Your task to perform on an android device: toggle location history Image 0: 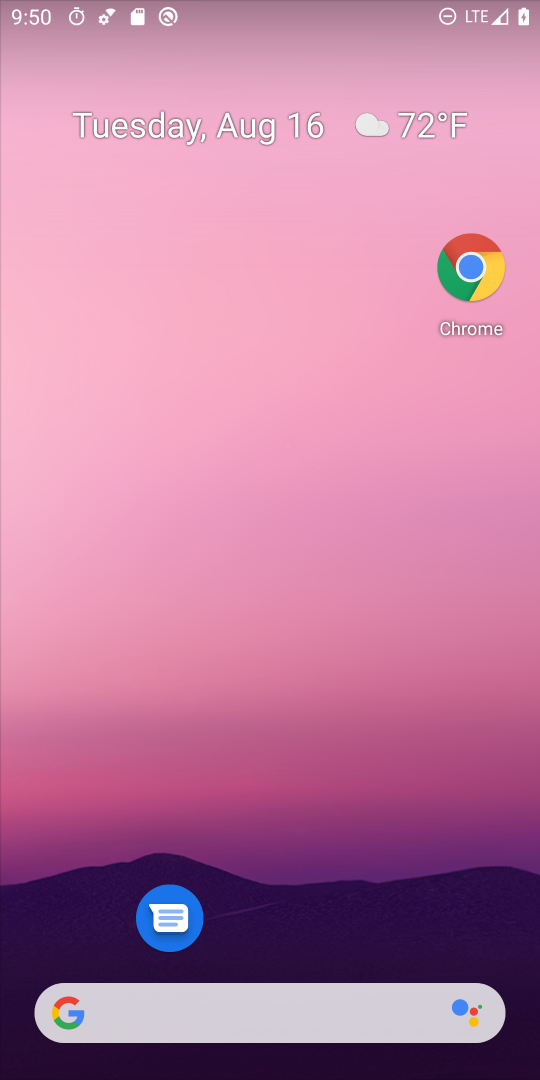
Step 0: drag from (270, 657) to (232, 97)
Your task to perform on an android device: toggle location history Image 1: 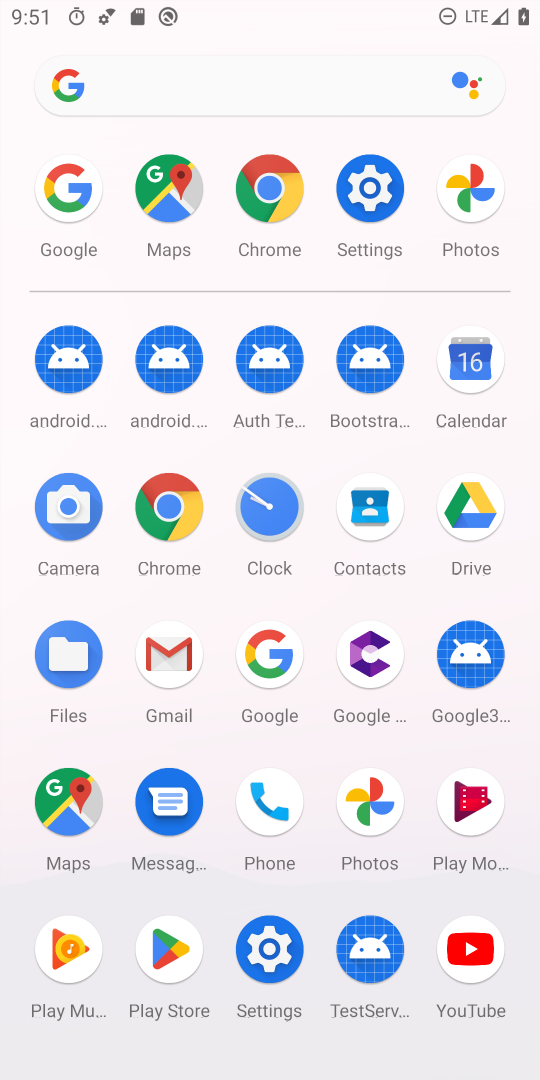
Step 1: click (373, 206)
Your task to perform on an android device: toggle location history Image 2: 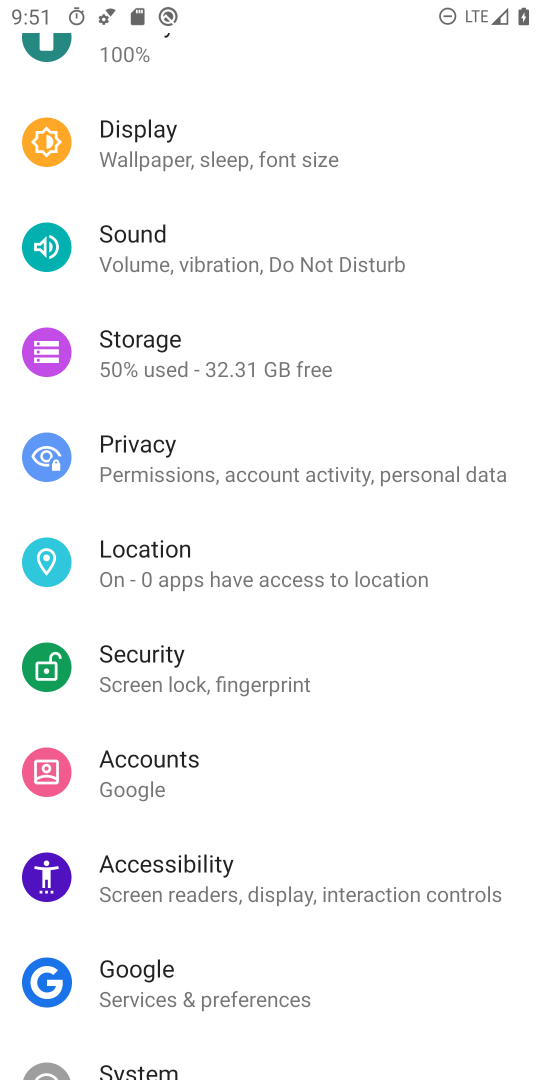
Step 2: click (265, 563)
Your task to perform on an android device: toggle location history Image 3: 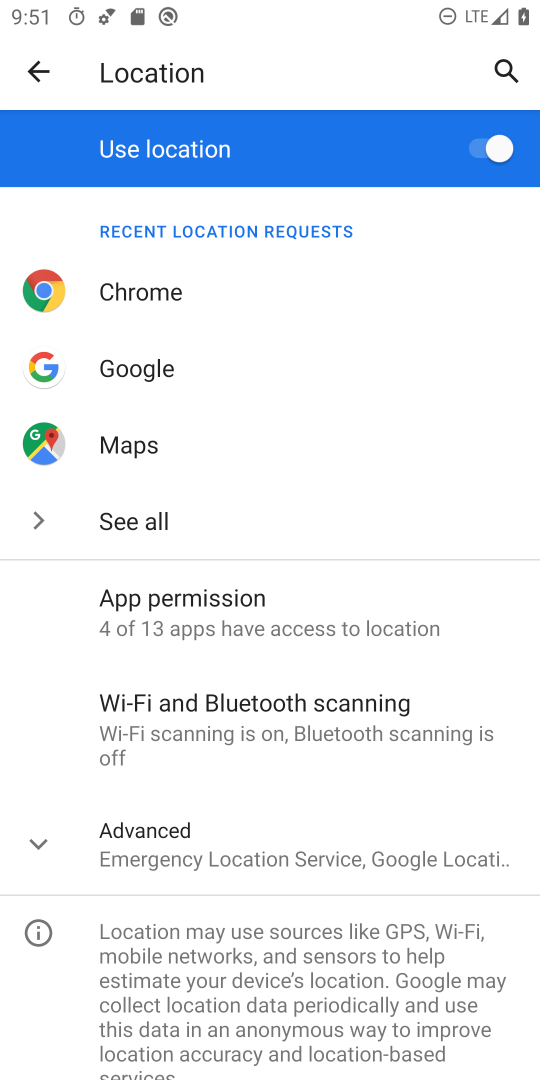
Step 3: click (241, 849)
Your task to perform on an android device: toggle location history Image 4: 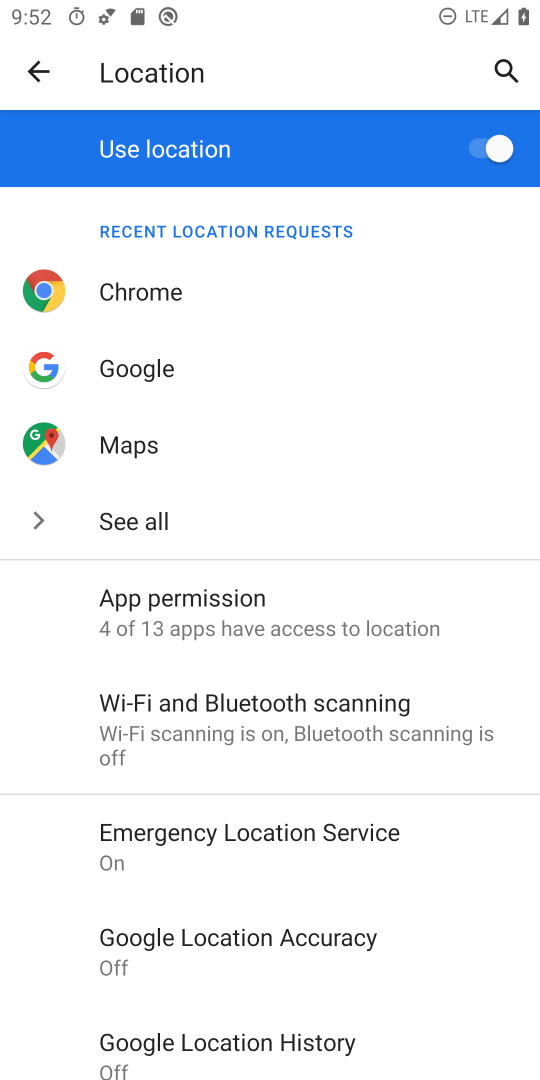
Step 4: click (295, 1054)
Your task to perform on an android device: toggle location history Image 5: 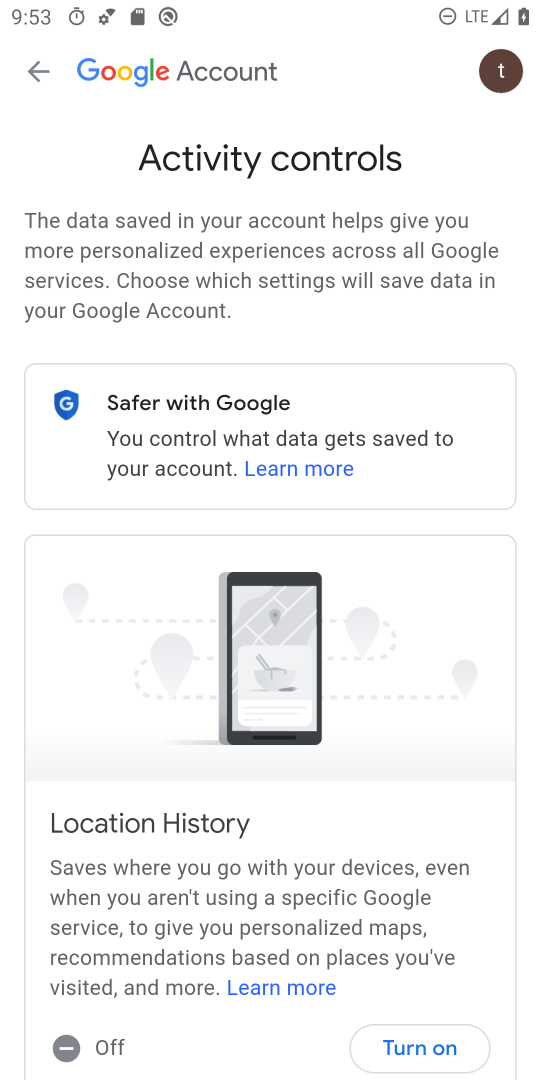
Step 5: click (438, 1040)
Your task to perform on an android device: toggle location history Image 6: 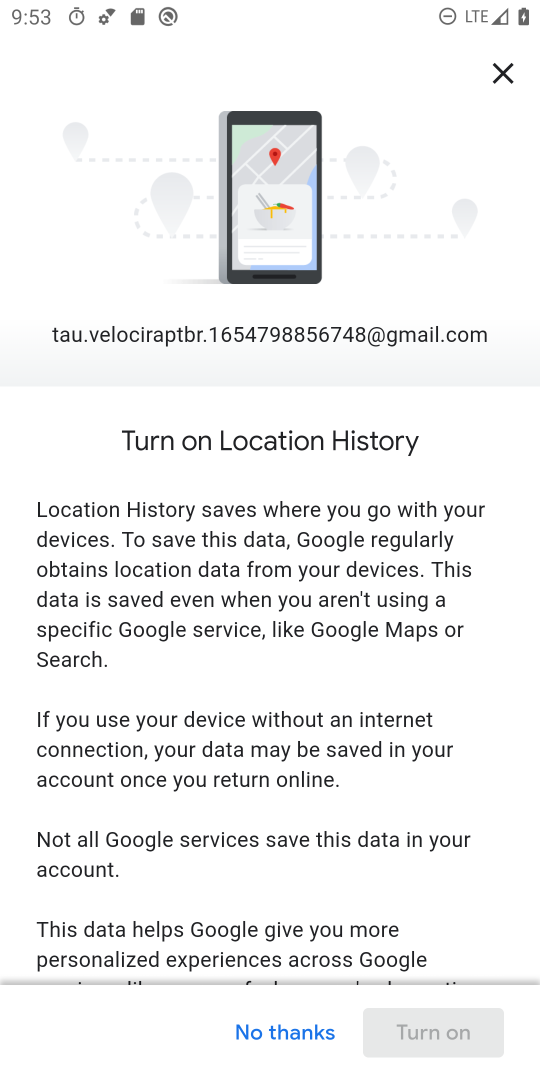
Step 6: drag from (309, 834) to (286, 50)
Your task to perform on an android device: toggle location history Image 7: 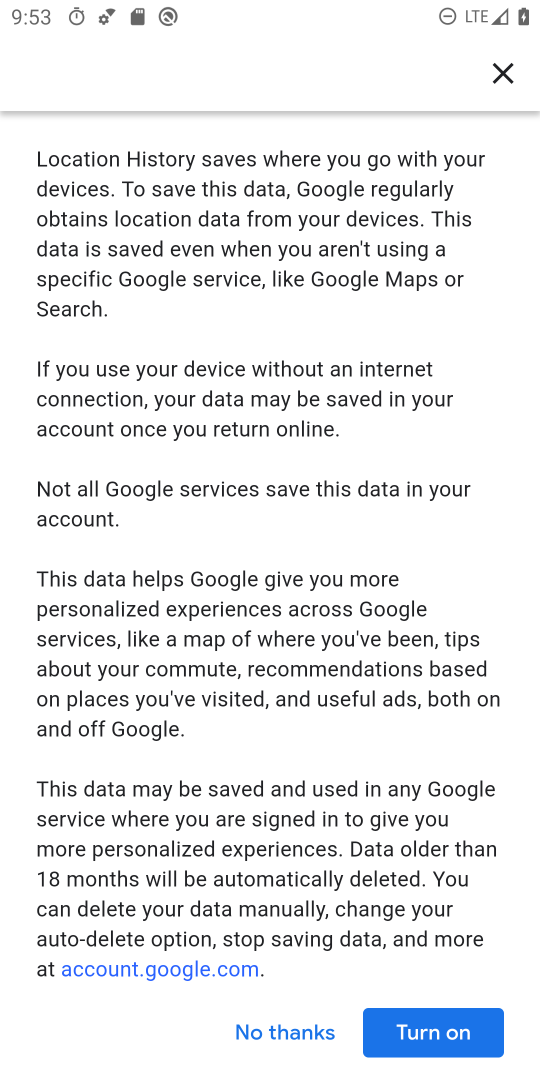
Step 7: click (446, 1032)
Your task to perform on an android device: toggle location history Image 8: 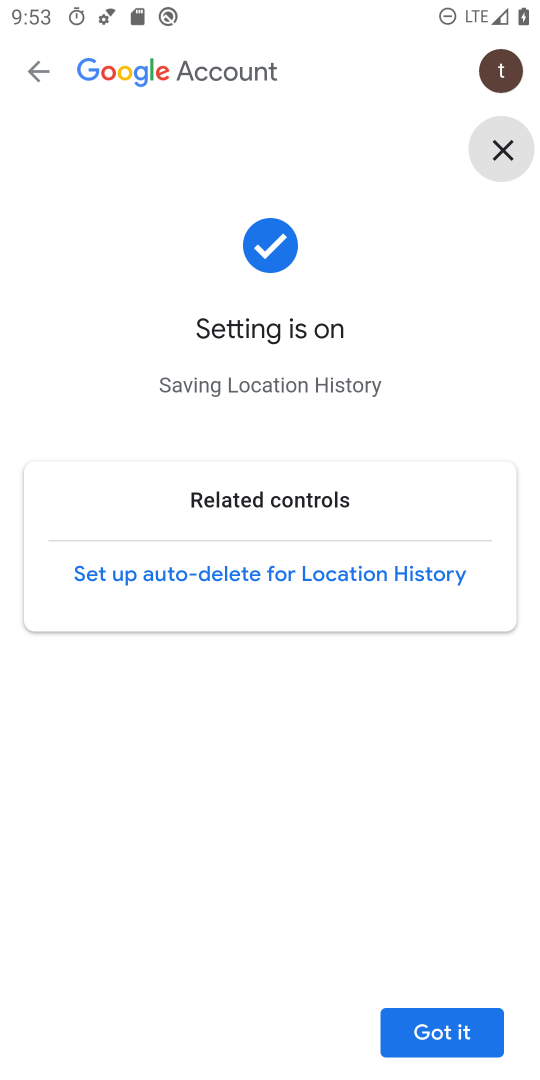
Step 8: click (443, 1042)
Your task to perform on an android device: toggle location history Image 9: 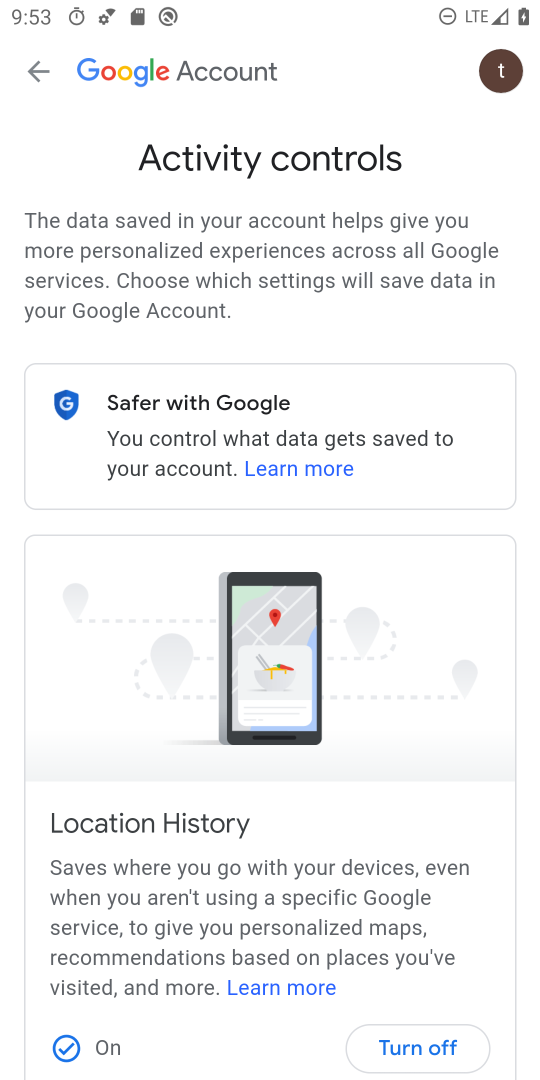
Step 9: task complete